Your task to perform on an android device: Open maps Image 0: 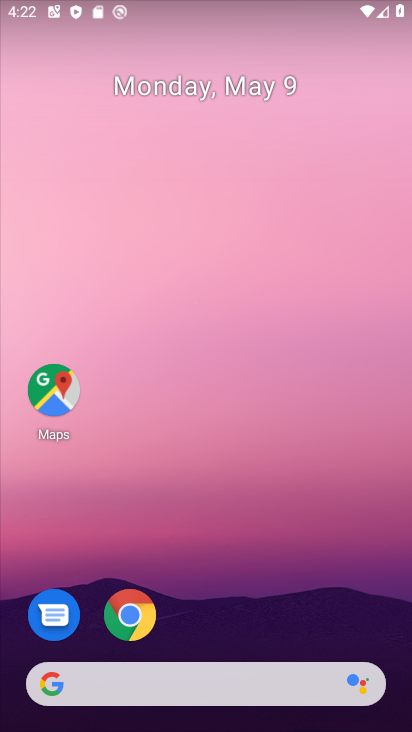
Step 0: click (50, 382)
Your task to perform on an android device: Open maps Image 1: 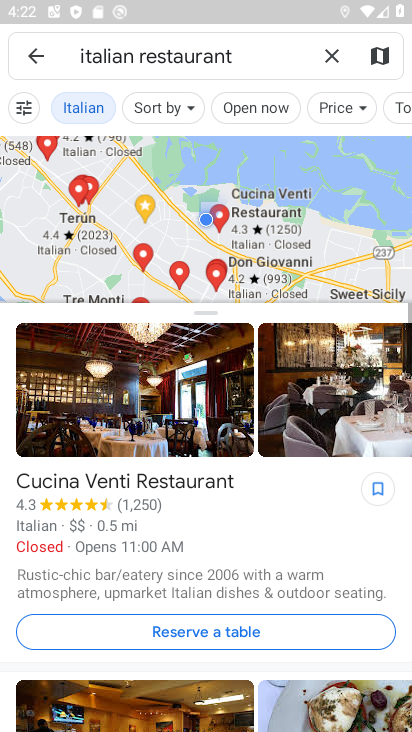
Step 1: task complete